Your task to perform on an android device: Open Amazon Image 0: 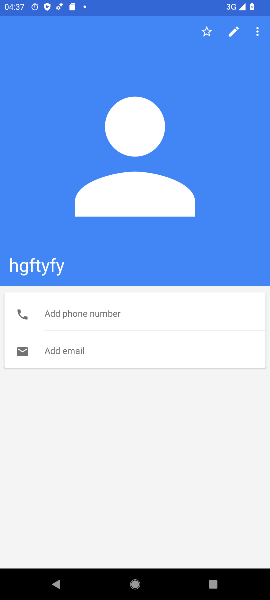
Step 0: press home button
Your task to perform on an android device: Open Amazon Image 1: 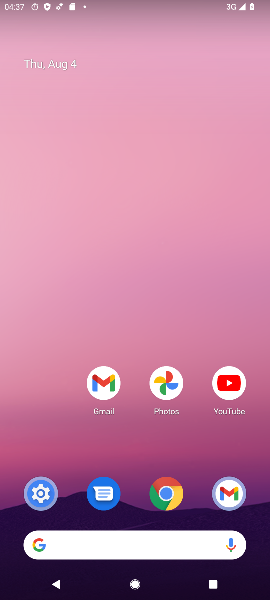
Step 1: click (96, 542)
Your task to perform on an android device: Open Amazon Image 2: 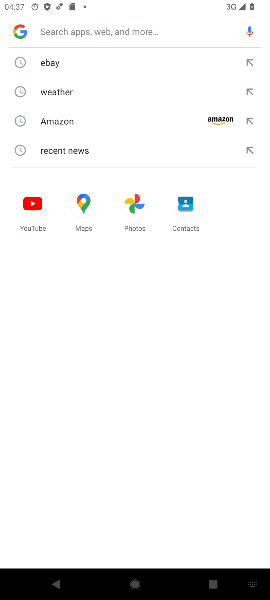
Step 2: click (64, 116)
Your task to perform on an android device: Open Amazon Image 3: 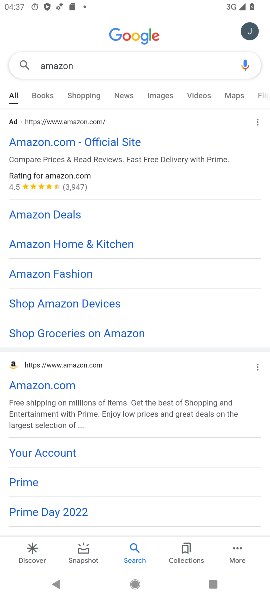
Step 3: task complete